Your task to perform on an android device: turn vacation reply on in the gmail app Image 0: 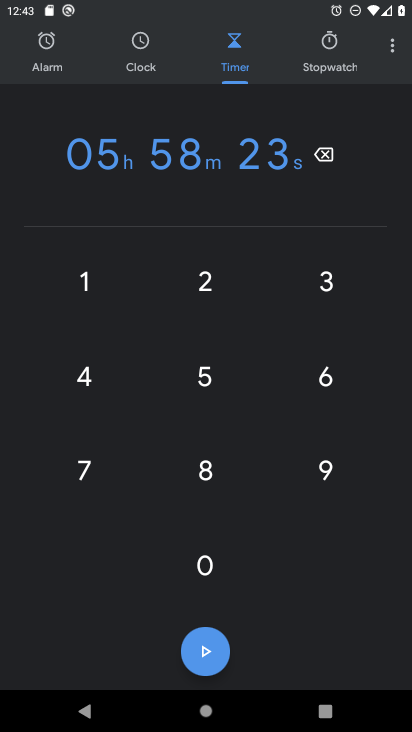
Step 0: press home button
Your task to perform on an android device: turn vacation reply on in the gmail app Image 1: 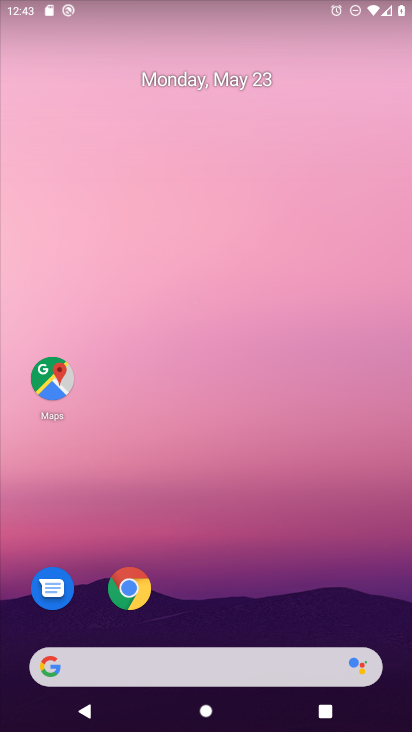
Step 1: drag from (265, 655) to (214, 109)
Your task to perform on an android device: turn vacation reply on in the gmail app Image 2: 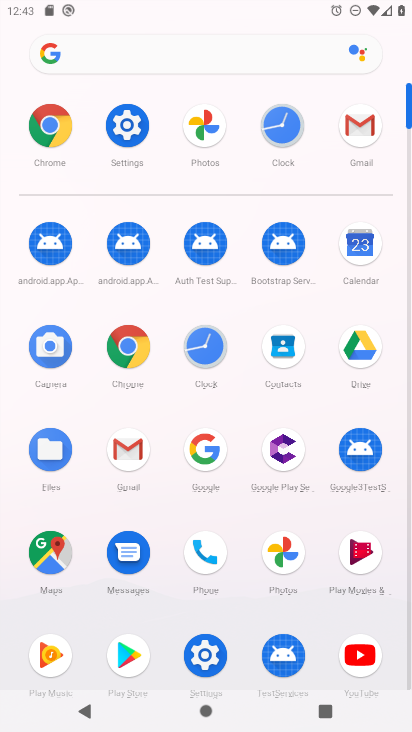
Step 2: click (141, 445)
Your task to perform on an android device: turn vacation reply on in the gmail app Image 3: 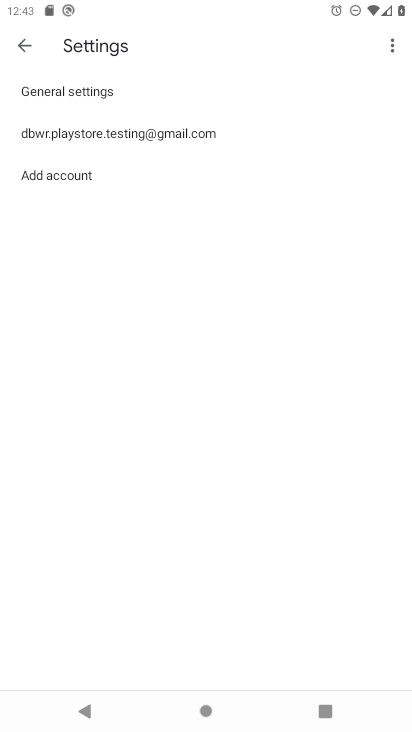
Step 3: click (76, 135)
Your task to perform on an android device: turn vacation reply on in the gmail app Image 4: 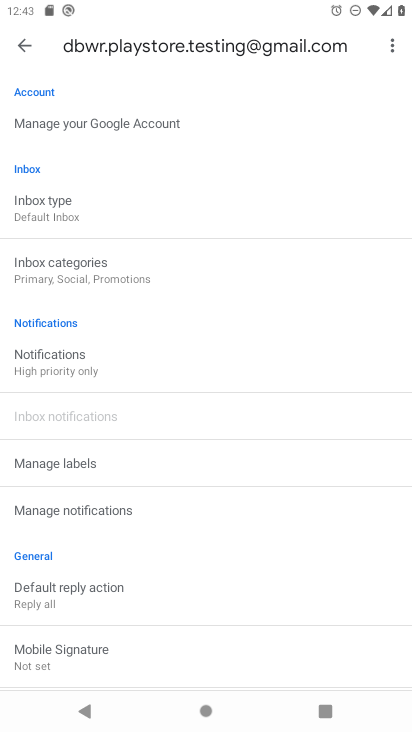
Step 4: drag from (195, 535) to (216, 217)
Your task to perform on an android device: turn vacation reply on in the gmail app Image 5: 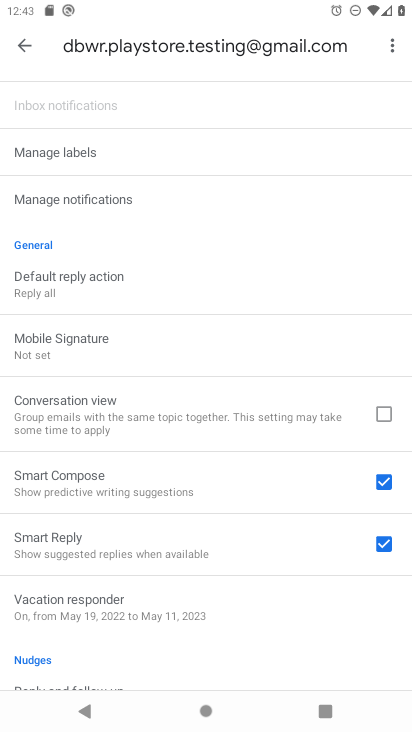
Step 5: drag from (196, 515) to (181, 206)
Your task to perform on an android device: turn vacation reply on in the gmail app Image 6: 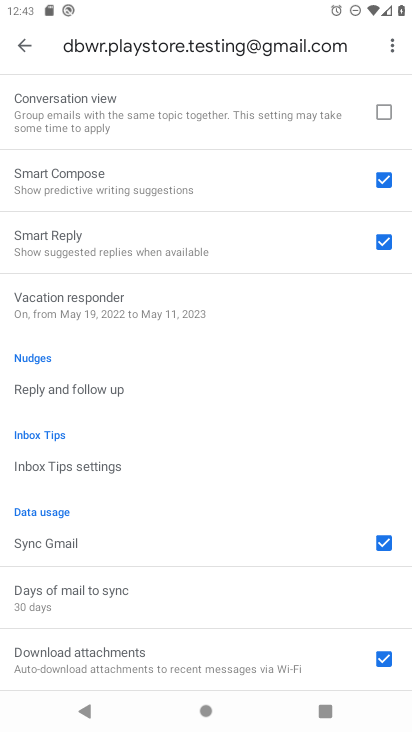
Step 6: click (87, 308)
Your task to perform on an android device: turn vacation reply on in the gmail app Image 7: 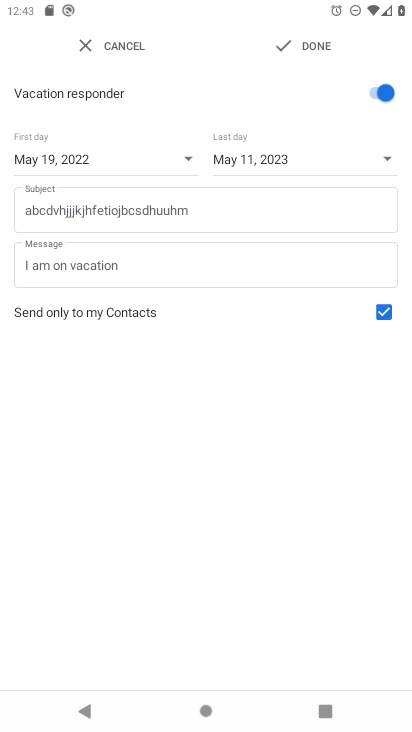
Step 7: task complete